Your task to perform on an android device: toggle airplane mode Image 0: 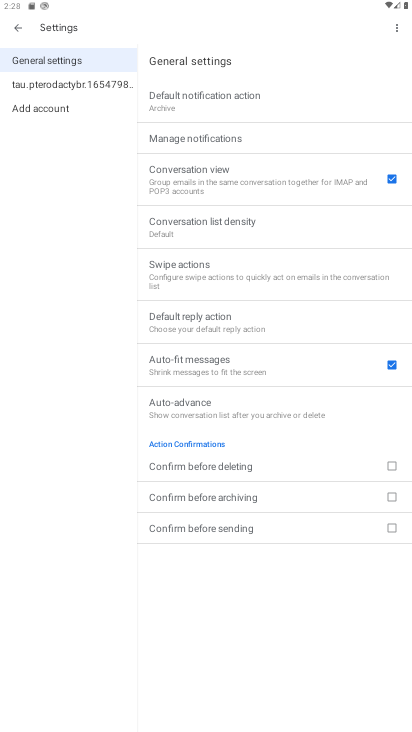
Step 0: press home button
Your task to perform on an android device: toggle airplane mode Image 1: 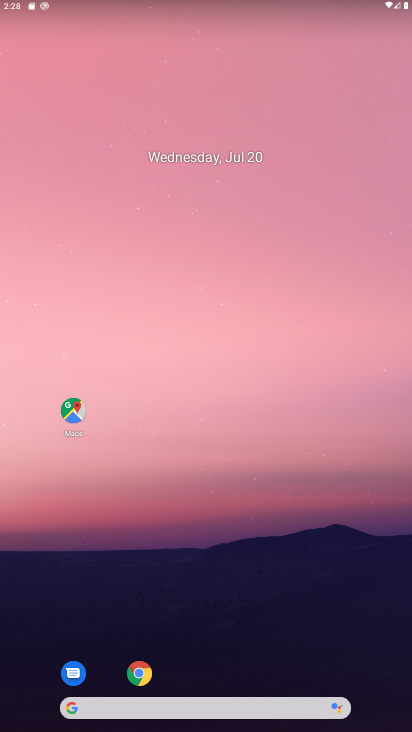
Step 1: drag from (206, 632) to (251, 10)
Your task to perform on an android device: toggle airplane mode Image 2: 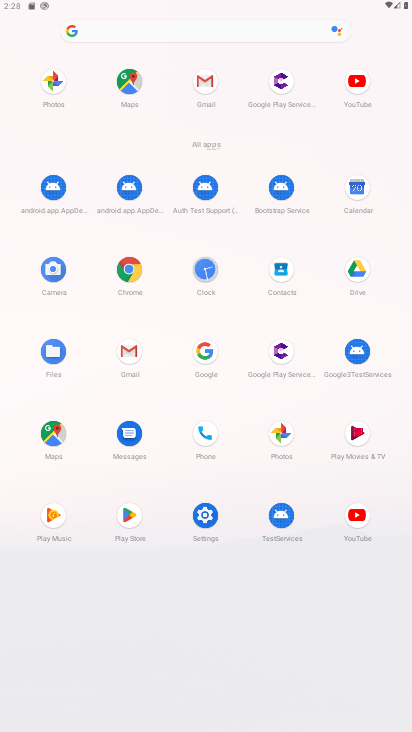
Step 2: click (211, 533)
Your task to perform on an android device: toggle airplane mode Image 3: 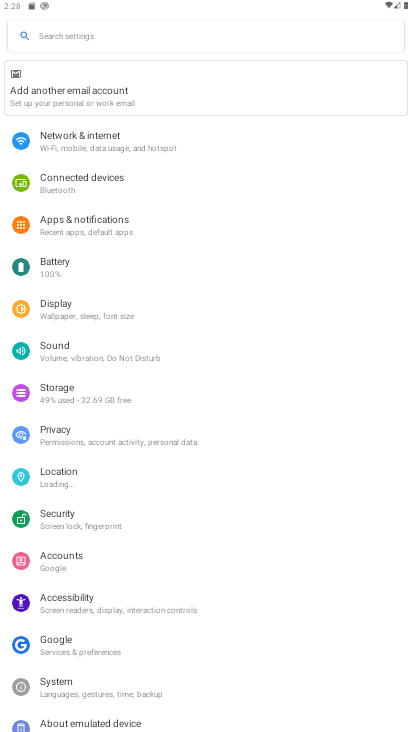
Step 3: click (110, 146)
Your task to perform on an android device: toggle airplane mode Image 4: 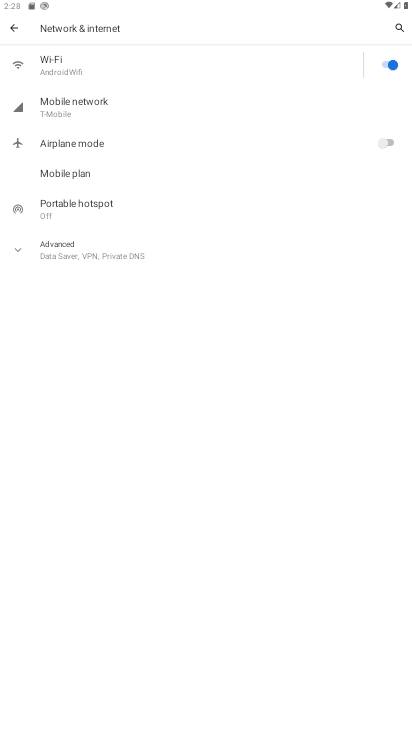
Step 4: click (401, 139)
Your task to perform on an android device: toggle airplane mode Image 5: 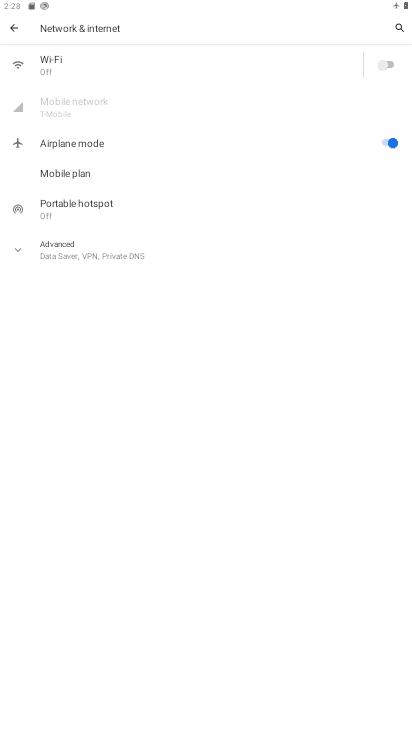
Step 5: task complete